Your task to perform on an android device: When is my next appointment? Image 0: 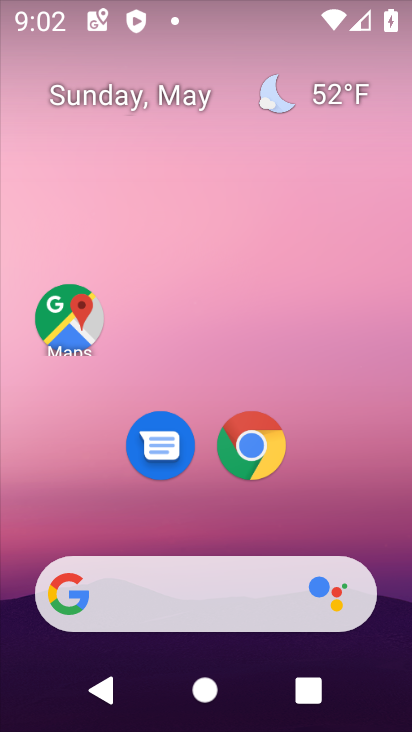
Step 0: drag from (346, 511) to (158, 4)
Your task to perform on an android device: When is my next appointment? Image 1: 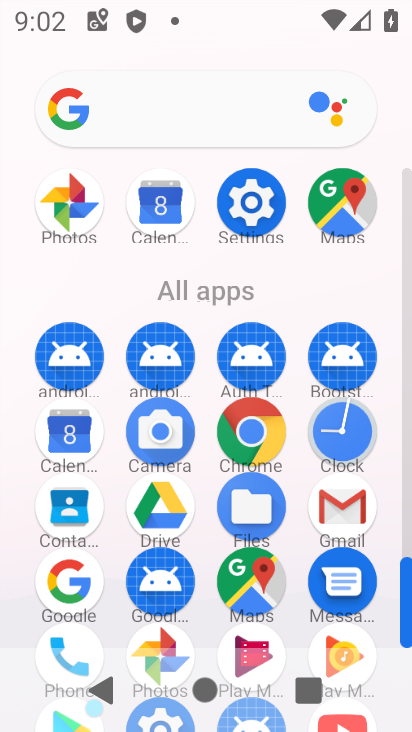
Step 1: click (62, 437)
Your task to perform on an android device: When is my next appointment? Image 2: 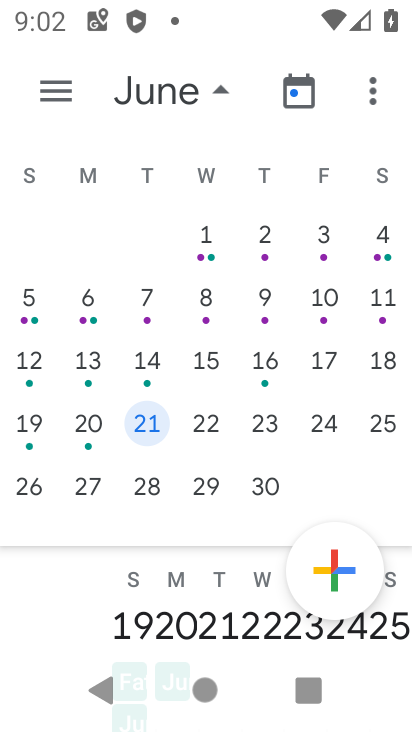
Step 2: click (59, 92)
Your task to perform on an android device: When is my next appointment? Image 3: 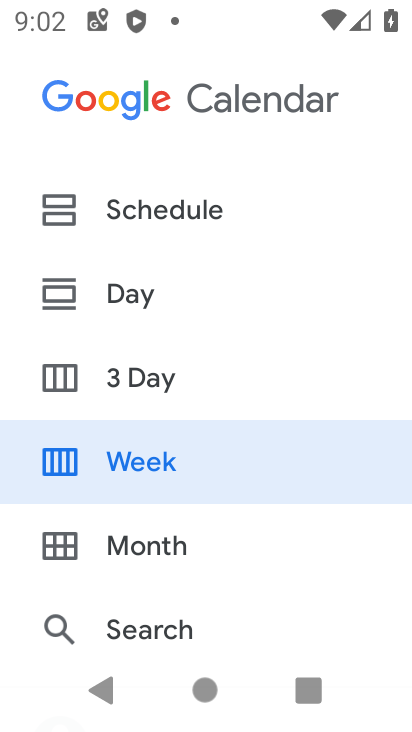
Step 3: click (118, 298)
Your task to perform on an android device: When is my next appointment? Image 4: 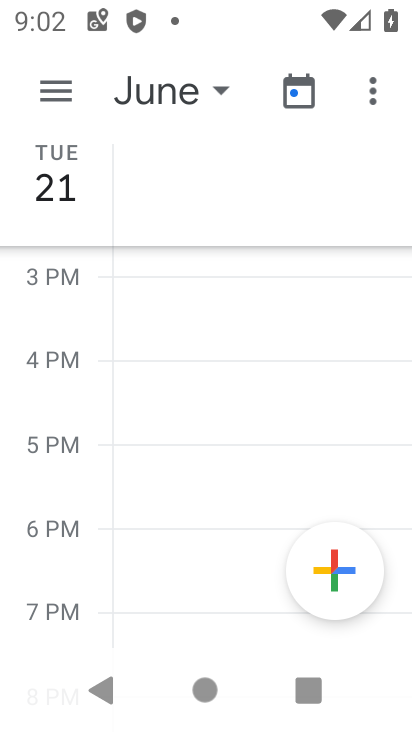
Step 4: click (219, 93)
Your task to perform on an android device: When is my next appointment? Image 5: 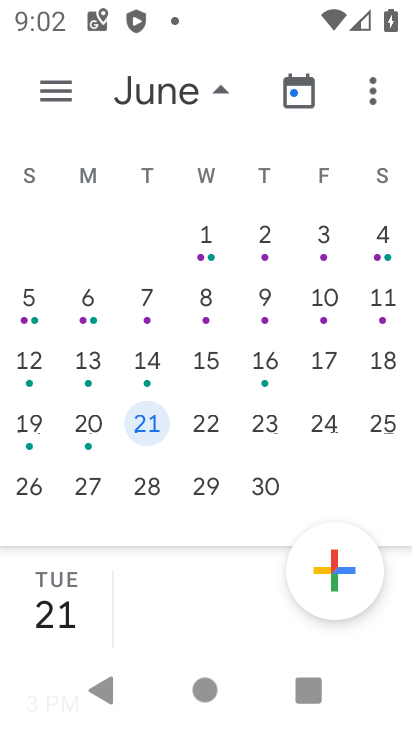
Step 5: drag from (20, 331) to (255, 371)
Your task to perform on an android device: When is my next appointment? Image 6: 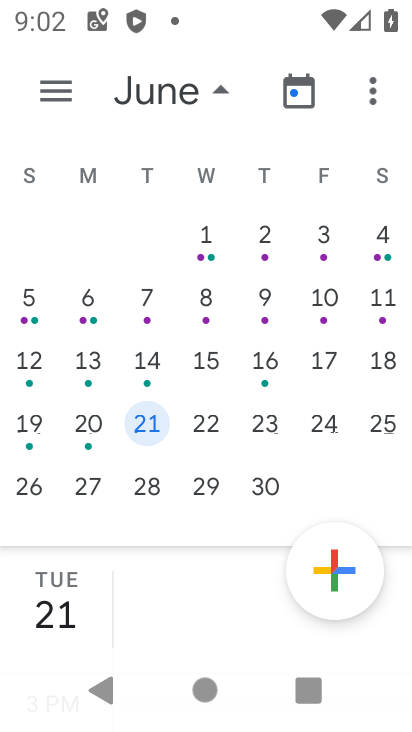
Step 6: drag from (28, 348) to (411, 344)
Your task to perform on an android device: When is my next appointment? Image 7: 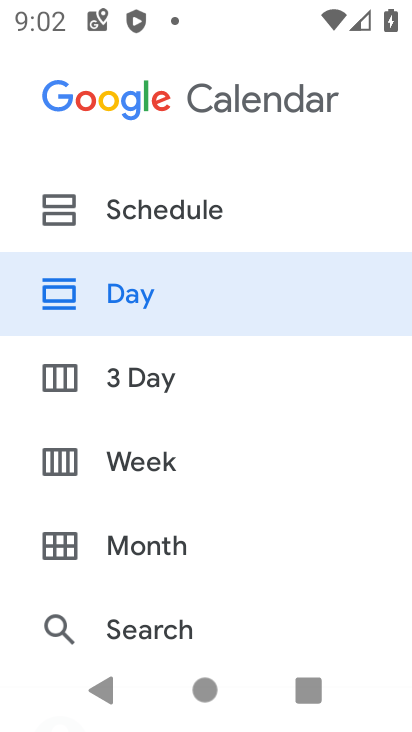
Step 7: click (368, 351)
Your task to perform on an android device: When is my next appointment? Image 8: 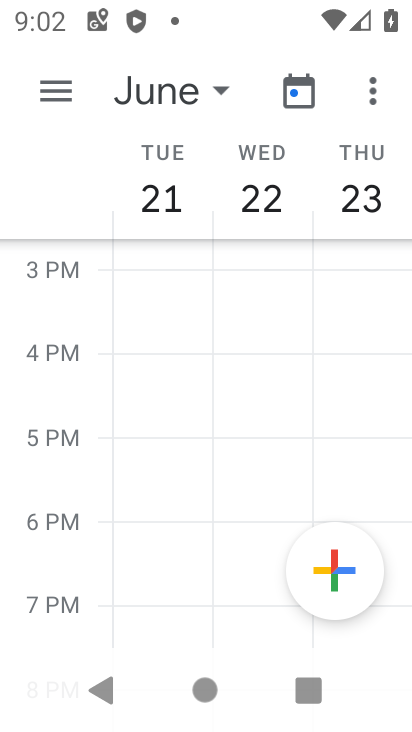
Step 8: click (213, 90)
Your task to perform on an android device: When is my next appointment? Image 9: 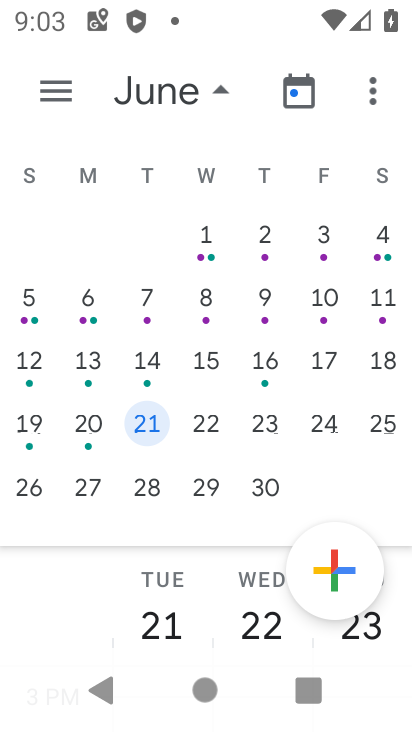
Step 9: drag from (20, 217) to (397, 341)
Your task to perform on an android device: When is my next appointment? Image 10: 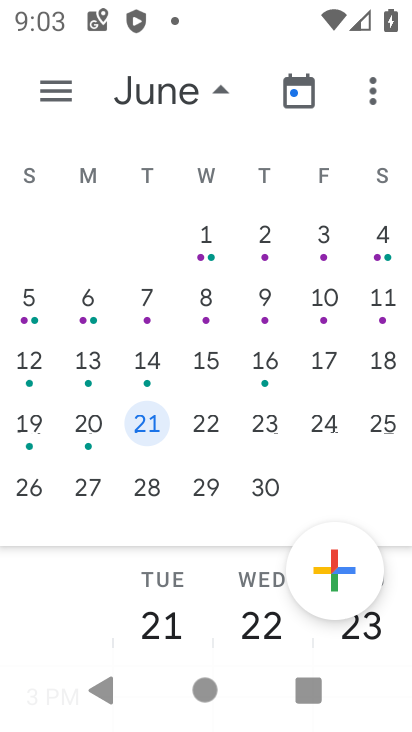
Step 10: drag from (37, 372) to (372, 354)
Your task to perform on an android device: When is my next appointment? Image 11: 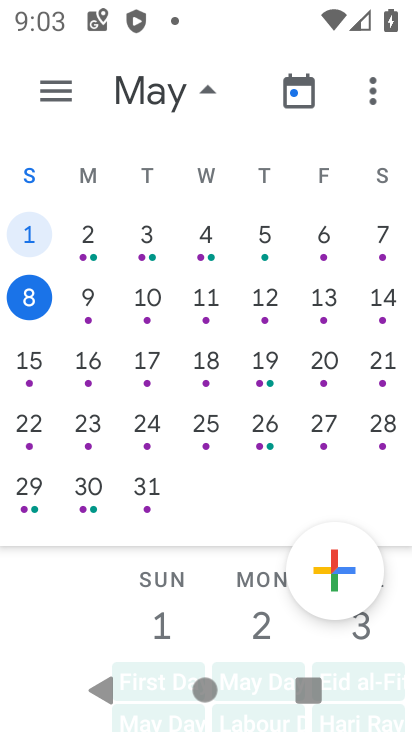
Step 11: click (29, 299)
Your task to perform on an android device: When is my next appointment? Image 12: 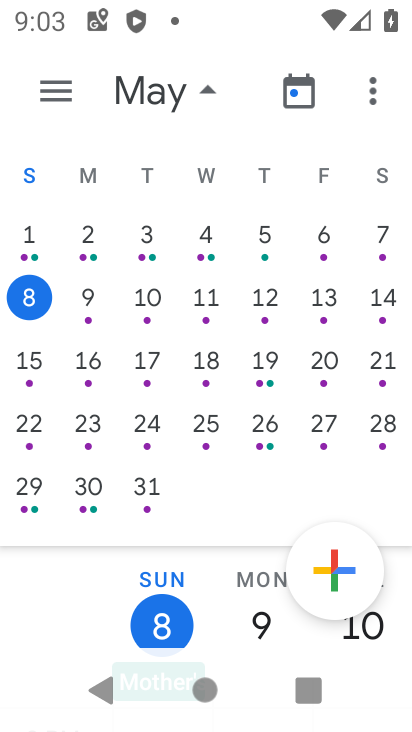
Step 12: task complete